Your task to perform on an android device: turn on wifi Image 0: 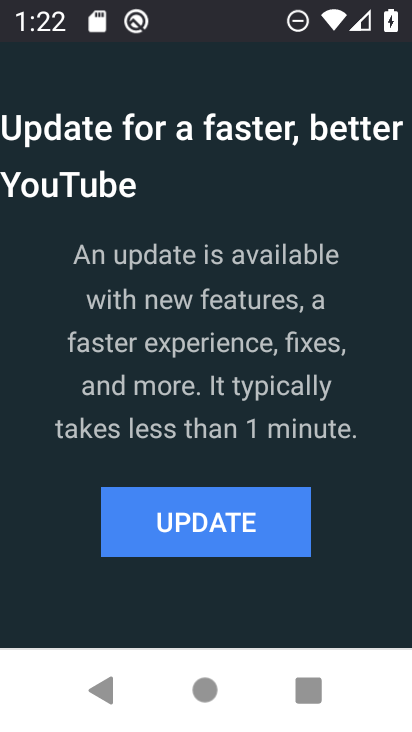
Step 0: click (235, 526)
Your task to perform on an android device: turn on wifi Image 1: 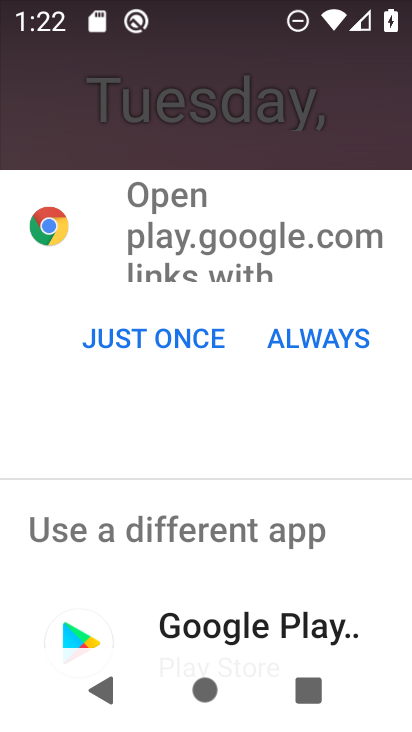
Step 1: click (173, 699)
Your task to perform on an android device: turn on wifi Image 2: 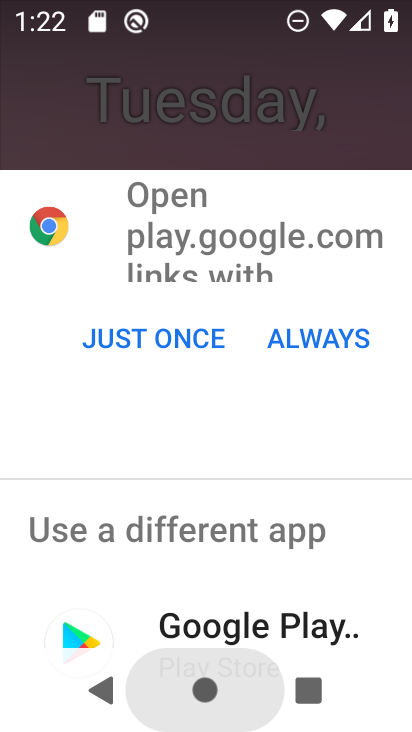
Step 2: click (208, 692)
Your task to perform on an android device: turn on wifi Image 3: 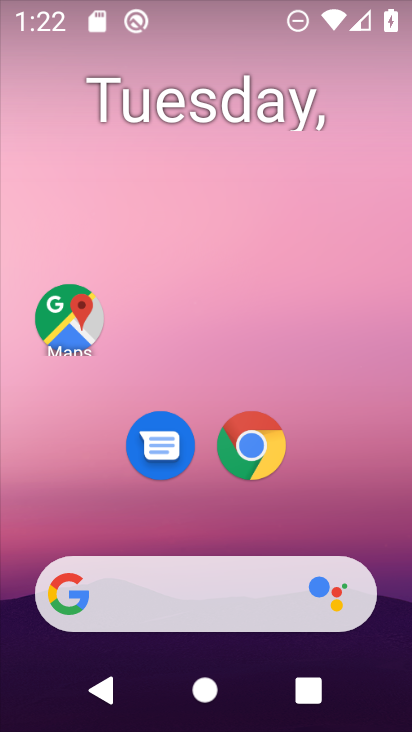
Step 3: task complete